Your task to perform on an android device: Clear the shopping cart on costco. Add alienware area 51 to the cart on costco Image 0: 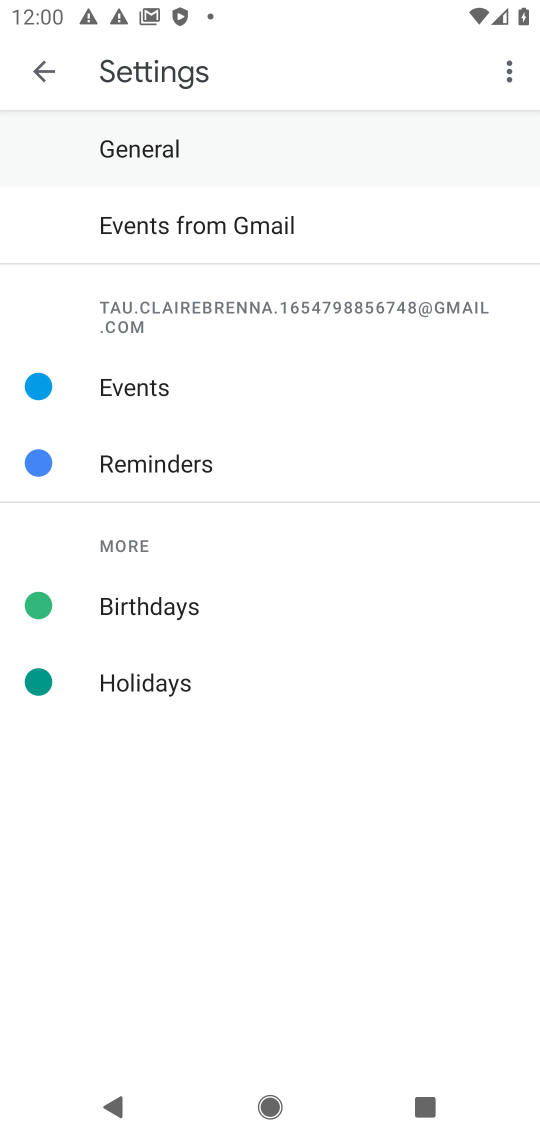
Step 0: press home button
Your task to perform on an android device: Clear the shopping cart on costco. Add alienware area 51 to the cart on costco Image 1: 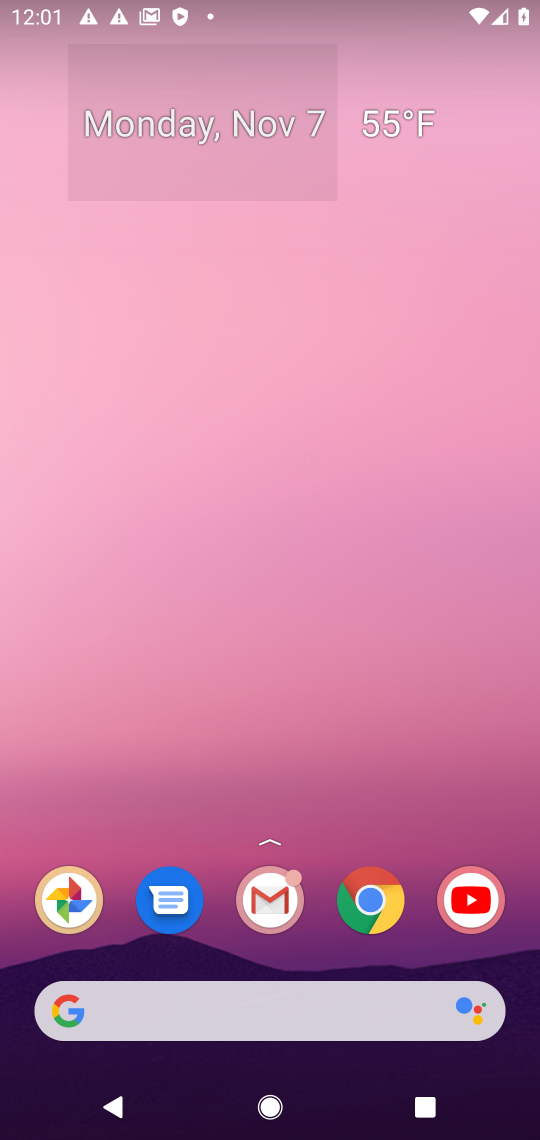
Step 1: click (329, 999)
Your task to perform on an android device: Clear the shopping cart on costco. Add alienware area 51 to the cart on costco Image 2: 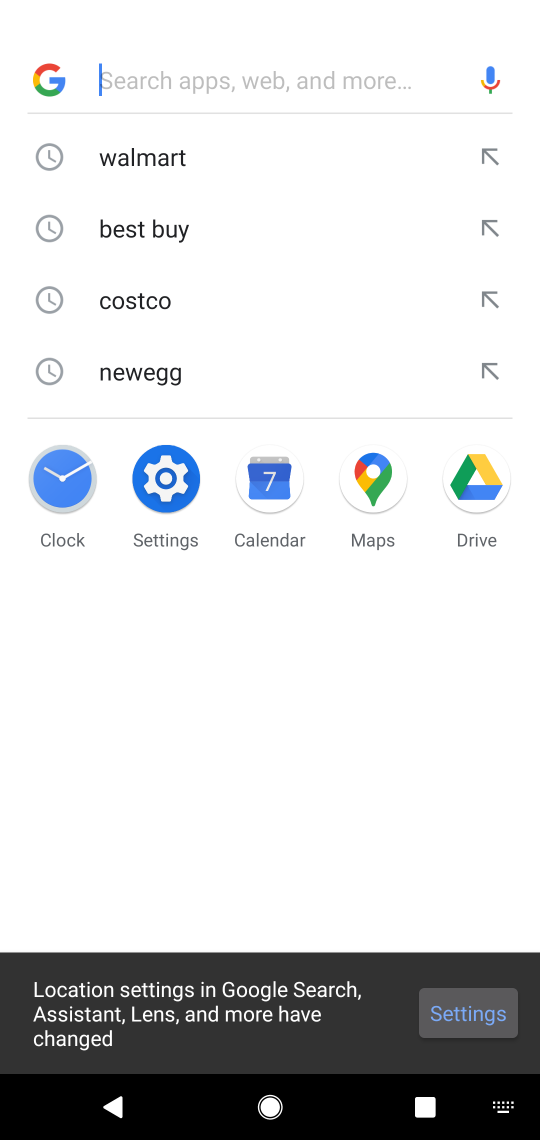
Step 2: click (266, 313)
Your task to perform on an android device: Clear the shopping cart on costco. Add alienware area 51 to the cart on costco Image 3: 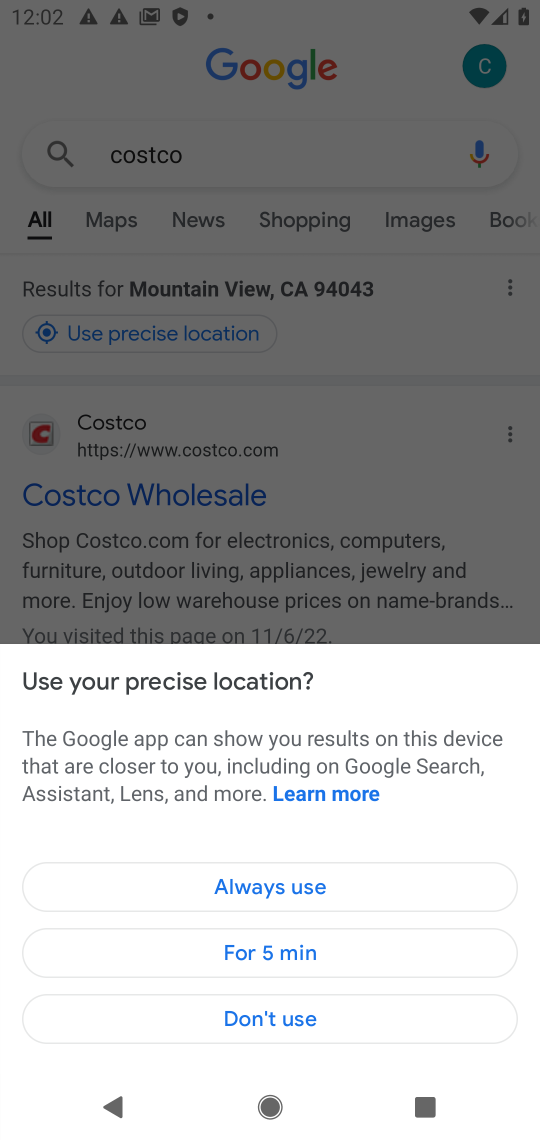
Step 3: task complete